Your task to perform on an android device: turn vacation reply on in the gmail app Image 0: 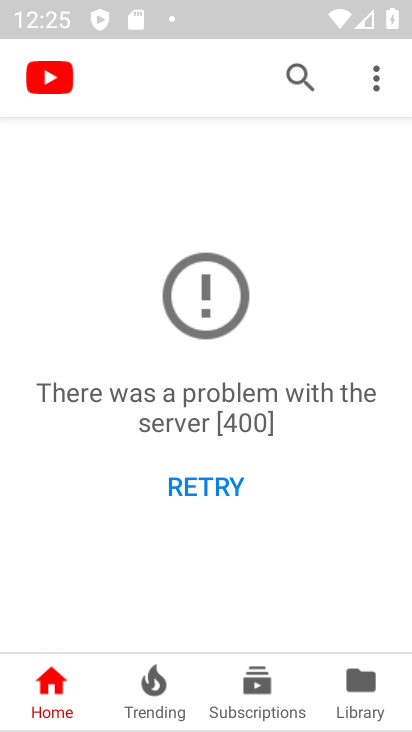
Step 0: press home button
Your task to perform on an android device: turn vacation reply on in the gmail app Image 1: 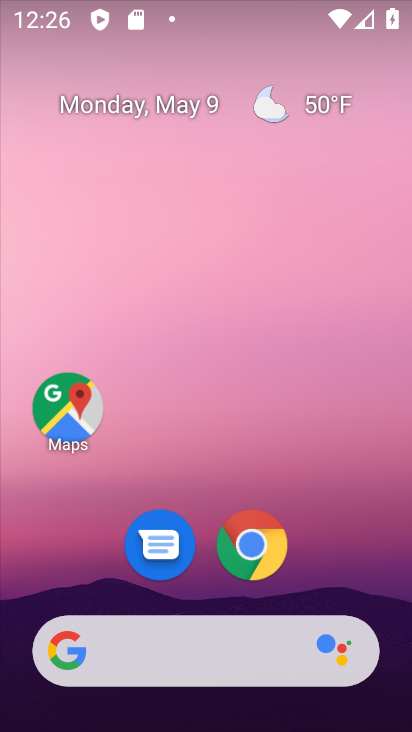
Step 1: drag from (196, 590) to (186, 228)
Your task to perform on an android device: turn vacation reply on in the gmail app Image 2: 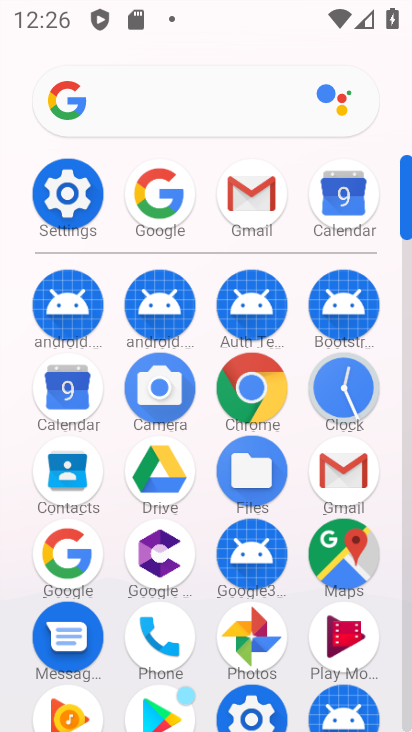
Step 2: click (172, 210)
Your task to perform on an android device: turn vacation reply on in the gmail app Image 3: 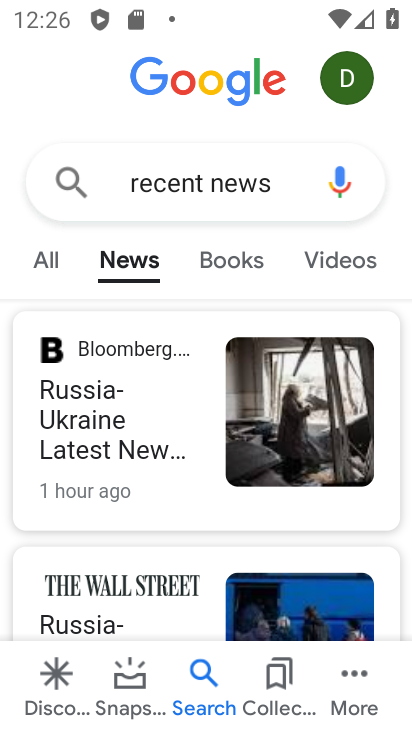
Step 3: press home button
Your task to perform on an android device: turn vacation reply on in the gmail app Image 4: 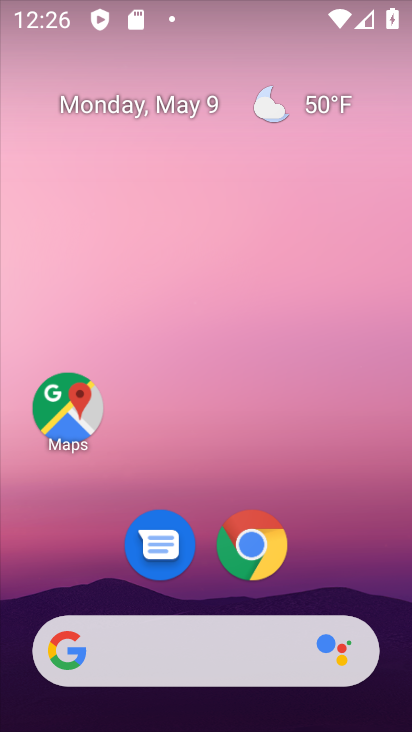
Step 4: drag from (213, 592) to (168, 229)
Your task to perform on an android device: turn vacation reply on in the gmail app Image 5: 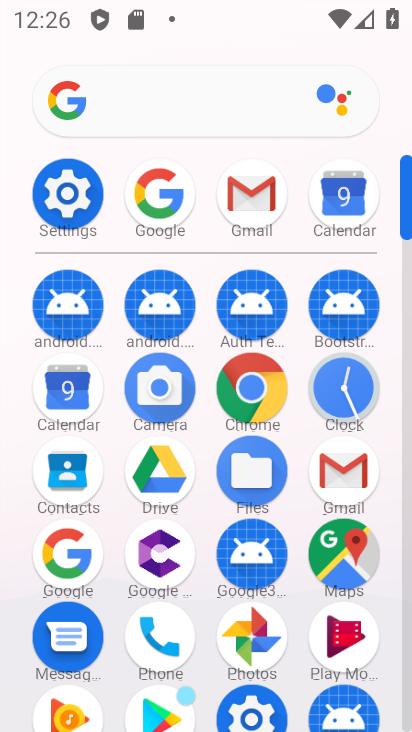
Step 5: click (226, 202)
Your task to perform on an android device: turn vacation reply on in the gmail app Image 6: 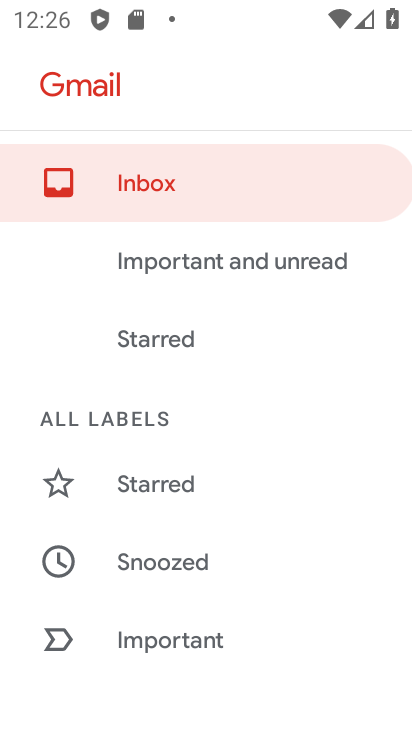
Step 6: drag from (108, 613) to (182, 308)
Your task to perform on an android device: turn vacation reply on in the gmail app Image 7: 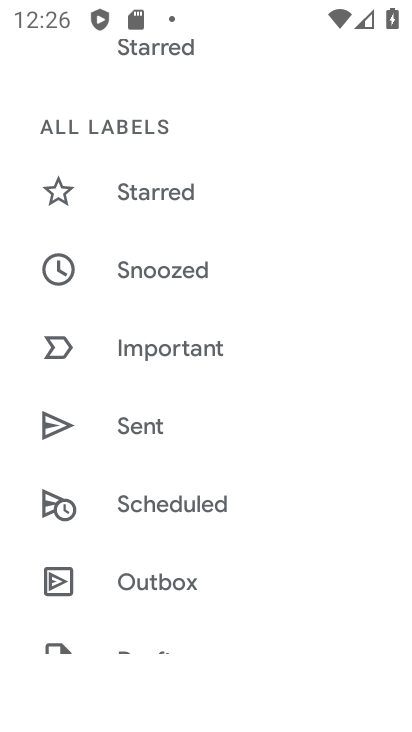
Step 7: drag from (184, 526) to (191, 280)
Your task to perform on an android device: turn vacation reply on in the gmail app Image 8: 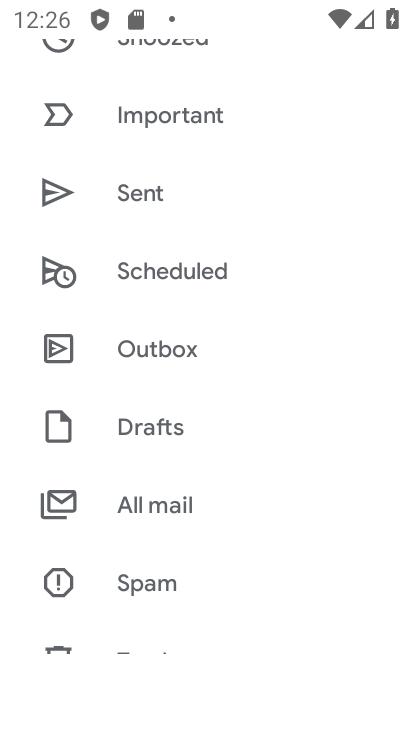
Step 8: drag from (205, 596) to (216, 303)
Your task to perform on an android device: turn vacation reply on in the gmail app Image 9: 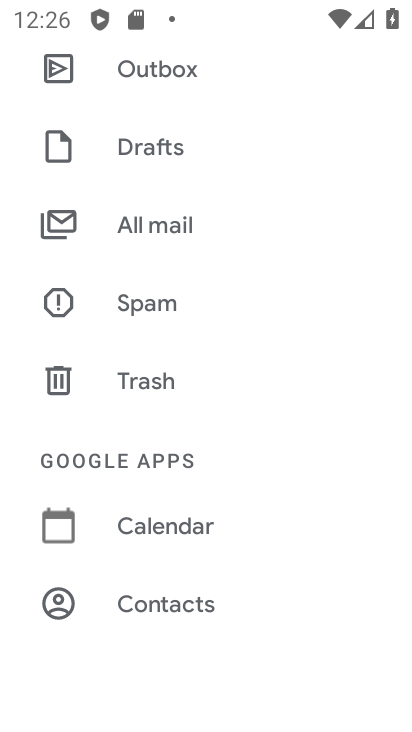
Step 9: drag from (177, 546) to (232, 238)
Your task to perform on an android device: turn vacation reply on in the gmail app Image 10: 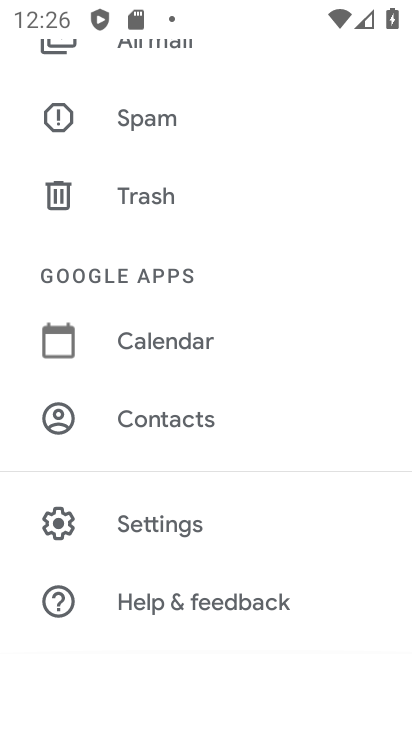
Step 10: click (142, 521)
Your task to perform on an android device: turn vacation reply on in the gmail app Image 11: 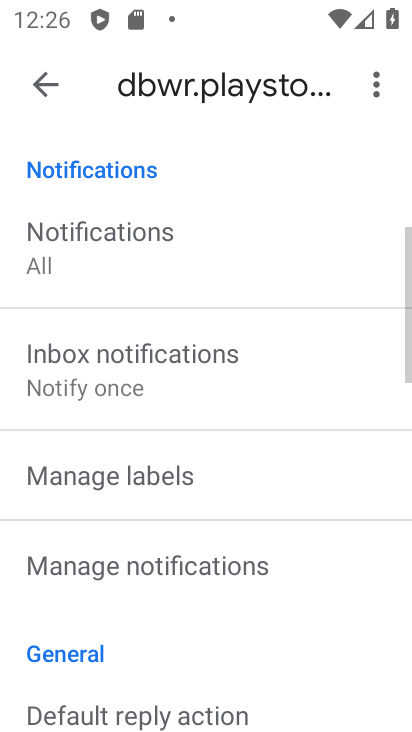
Step 11: drag from (207, 574) to (222, 218)
Your task to perform on an android device: turn vacation reply on in the gmail app Image 12: 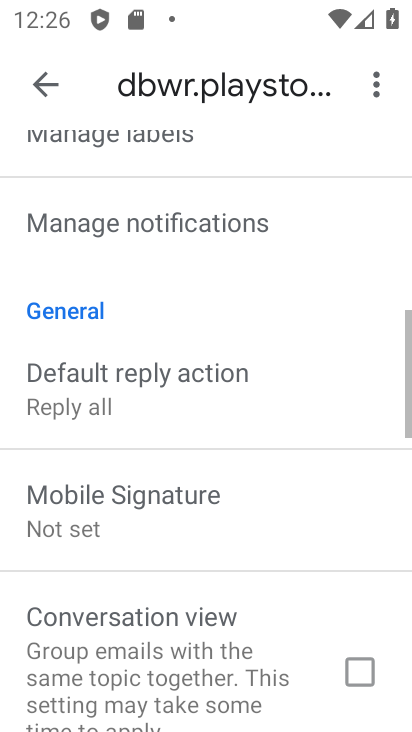
Step 12: drag from (225, 600) to (247, 292)
Your task to perform on an android device: turn vacation reply on in the gmail app Image 13: 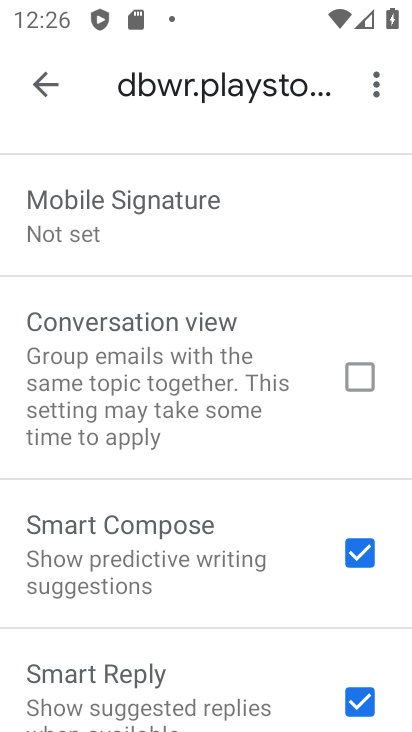
Step 13: drag from (220, 577) to (220, 356)
Your task to perform on an android device: turn vacation reply on in the gmail app Image 14: 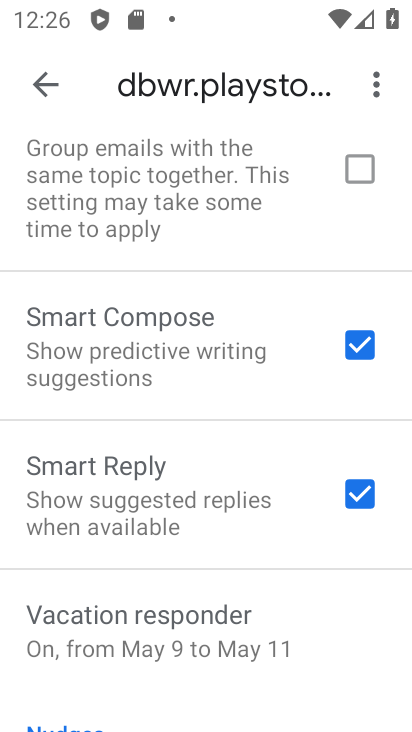
Step 14: click (162, 642)
Your task to perform on an android device: turn vacation reply on in the gmail app Image 15: 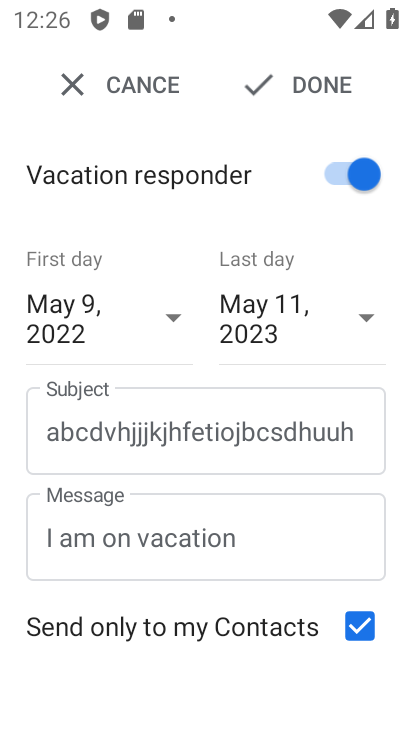
Step 15: task complete